Your task to perform on an android device: open app "PlayWell" (install if not already installed) and go to login screen Image 0: 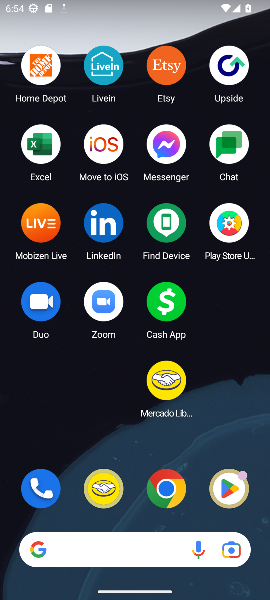
Step 0: click (238, 489)
Your task to perform on an android device: open app "PlayWell" (install if not already installed) and go to login screen Image 1: 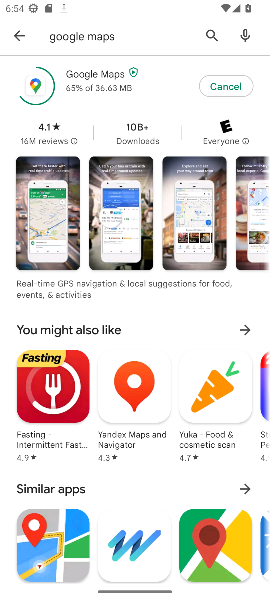
Step 1: click (215, 45)
Your task to perform on an android device: open app "PlayWell" (install if not already installed) and go to login screen Image 2: 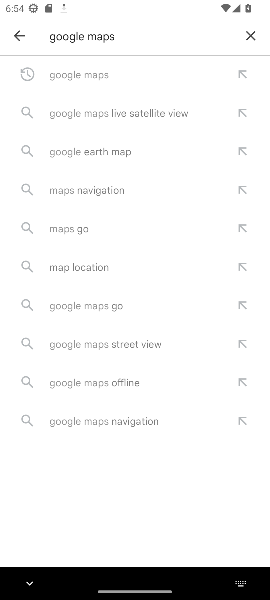
Step 2: click (250, 40)
Your task to perform on an android device: open app "PlayWell" (install if not already installed) and go to login screen Image 3: 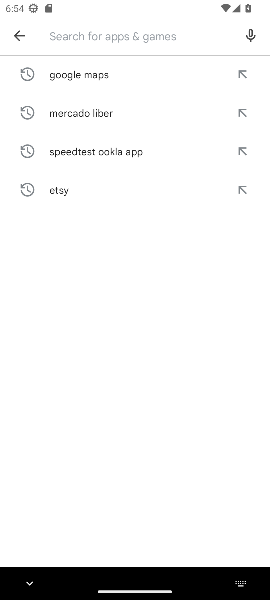
Step 3: type "play well"
Your task to perform on an android device: open app "PlayWell" (install if not already installed) and go to login screen Image 4: 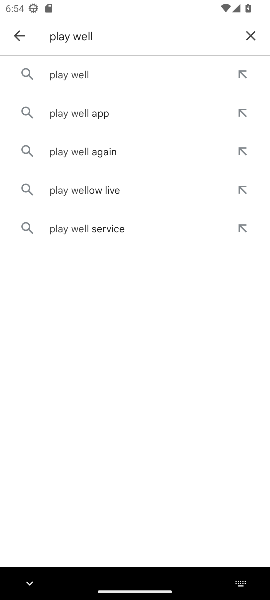
Step 4: click (67, 64)
Your task to perform on an android device: open app "PlayWell" (install if not already installed) and go to login screen Image 5: 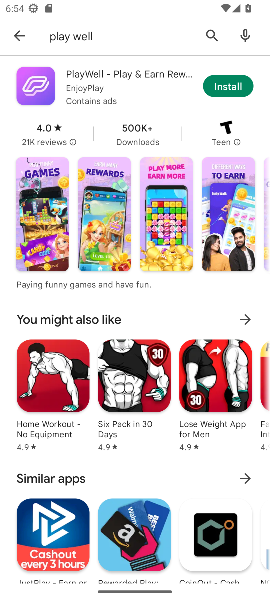
Step 5: click (213, 83)
Your task to perform on an android device: open app "PlayWell" (install if not already installed) and go to login screen Image 6: 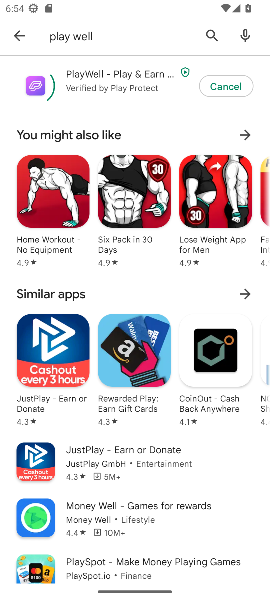
Step 6: task complete